Your task to perform on an android device: Do I have any events today? Image 0: 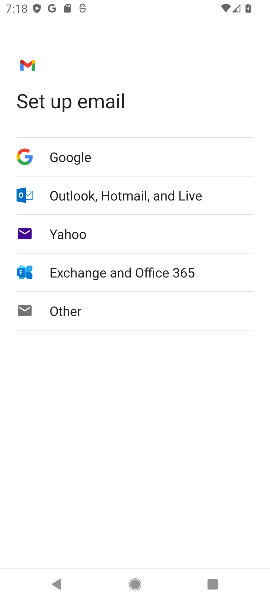
Step 0: press home button
Your task to perform on an android device: Do I have any events today? Image 1: 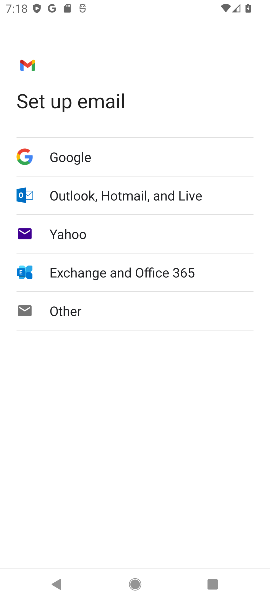
Step 1: press home button
Your task to perform on an android device: Do I have any events today? Image 2: 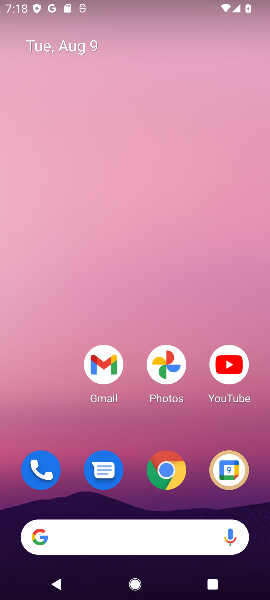
Step 2: click (238, 467)
Your task to perform on an android device: Do I have any events today? Image 3: 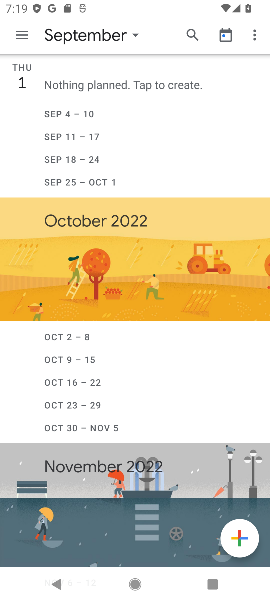
Step 3: click (17, 33)
Your task to perform on an android device: Do I have any events today? Image 4: 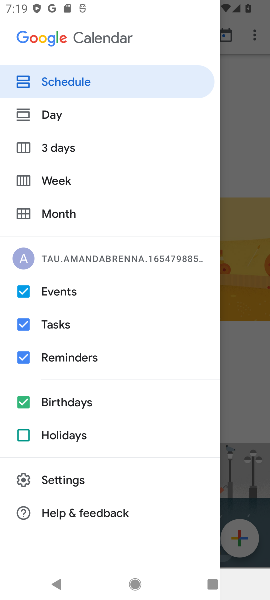
Step 4: click (79, 87)
Your task to perform on an android device: Do I have any events today? Image 5: 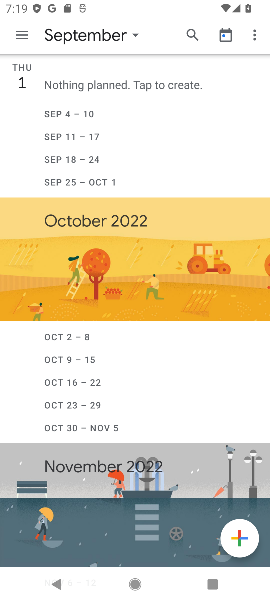
Step 5: task complete